Your task to perform on an android device: Open Chrome and go to settings Image 0: 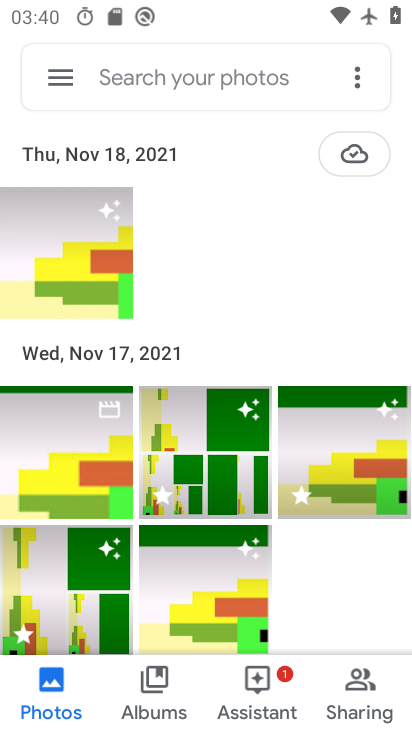
Step 0: press home button
Your task to perform on an android device: Open Chrome and go to settings Image 1: 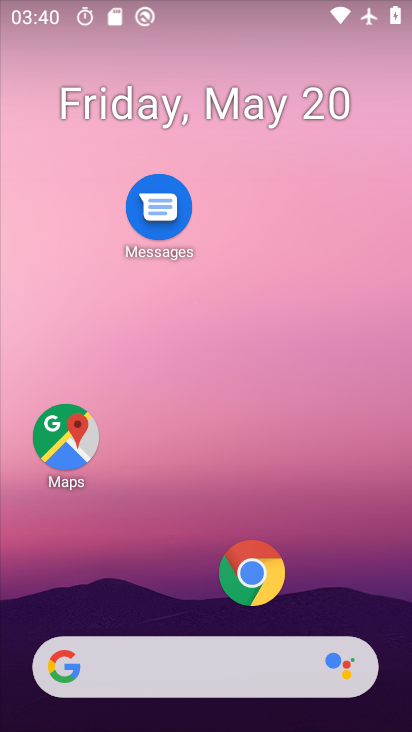
Step 1: click (264, 569)
Your task to perform on an android device: Open Chrome and go to settings Image 2: 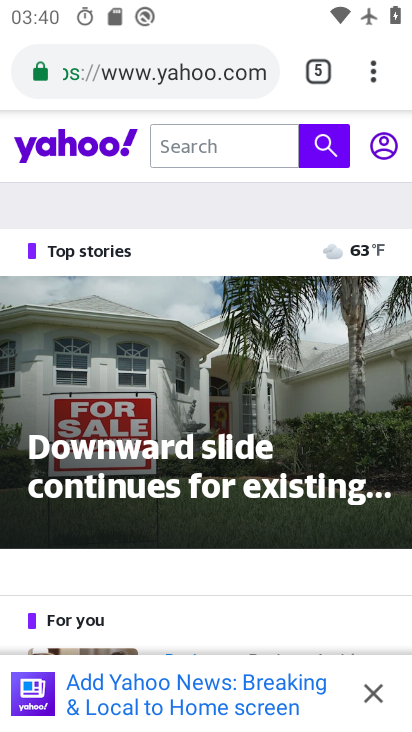
Step 2: click (371, 76)
Your task to perform on an android device: Open Chrome and go to settings Image 3: 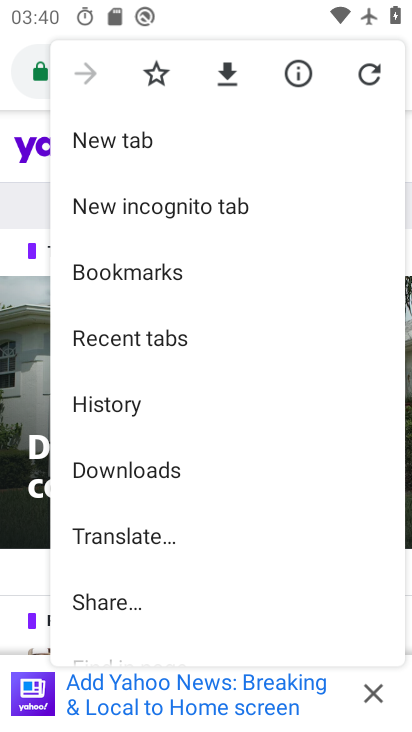
Step 3: drag from (183, 559) to (230, 264)
Your task to perform on an android device: Open Chrome and go to settings Image 4: 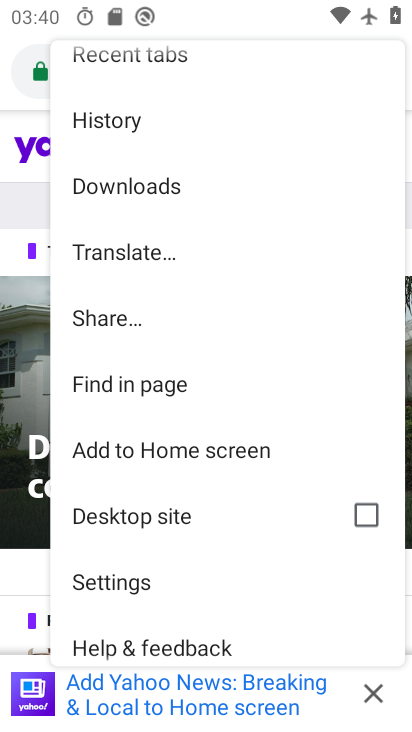
Step 4: click (158, 573)
Your task to perform on an android device: Open Chrome and go to settings Image 5: 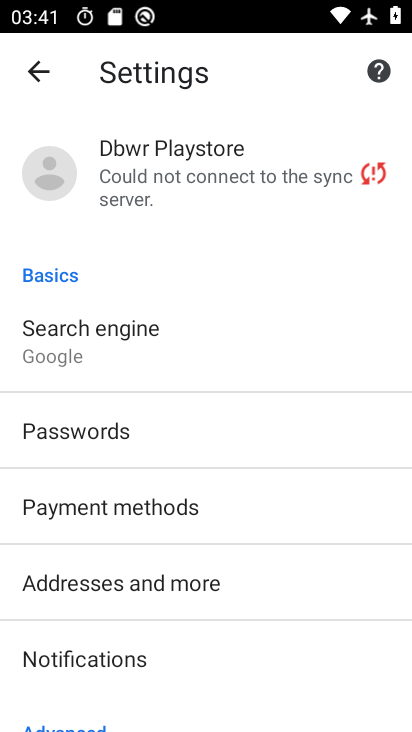
Step 5: task complete